Your task to perform on an android device: move a message to another label in the gmail app Image 0: 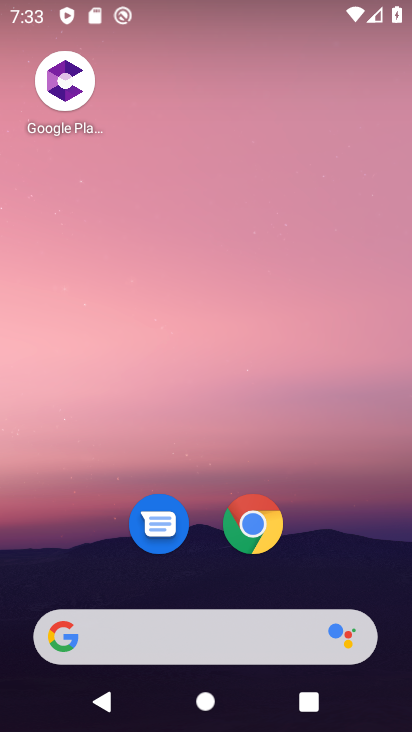
Step 0: drag from (320, 470) to (332, 23)
Your task to perform on an android device: move a message to another label in the gmail app Image 1: 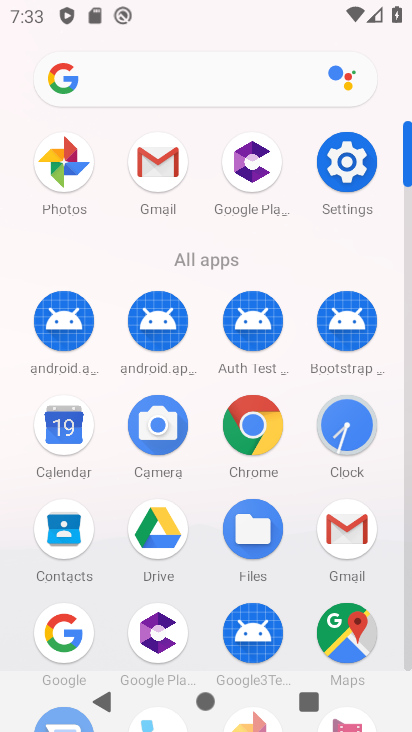
Step 1: click (169, 141)
Your task to perform on an android device: move a message to another label in the gmail app Image 2: 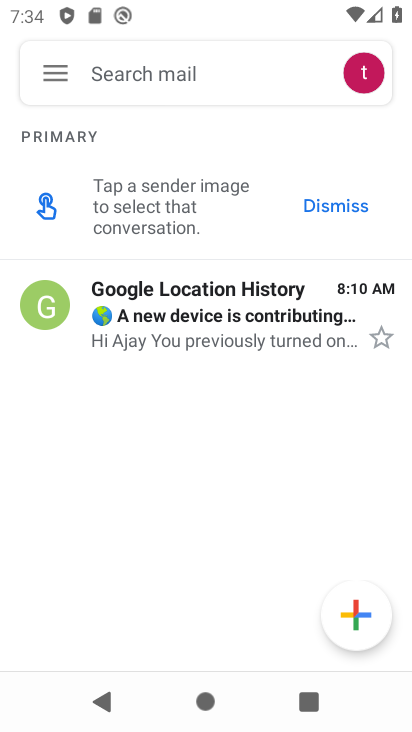
Step 2: click (230, 301)
Your task to perform on an android device: move a message to another label in the gmail app Image 3: 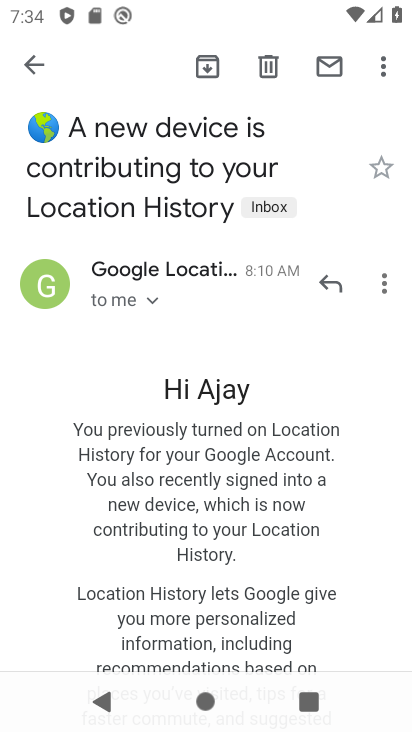
Step 3: click (385, 69)
Your task to perform on an android device: move a message to another label in the gmail app Image 4: 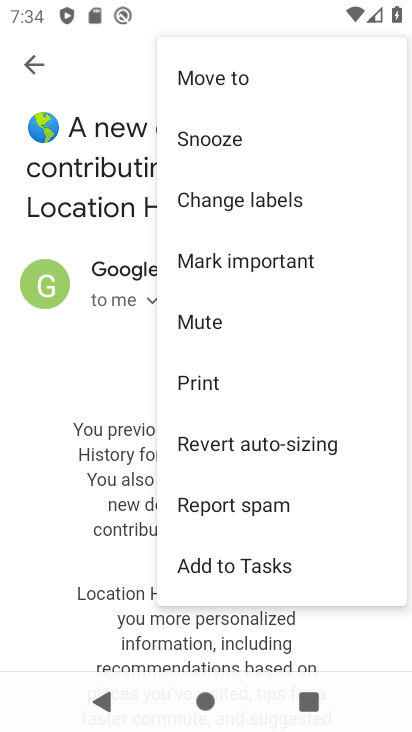
Step 4: click (221, 67)
Your task to perform on an android device: move a message to another label in the gmail app Image 5: 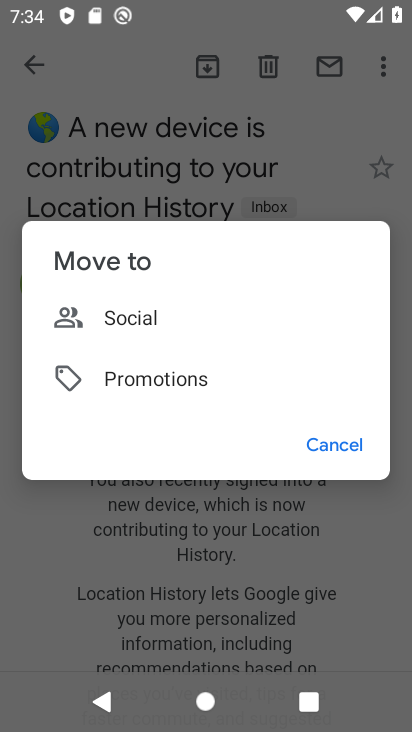
Step 5: click (147, 317)
Your task to perform on an android device: move a message to another label in the gmail app Image 6: 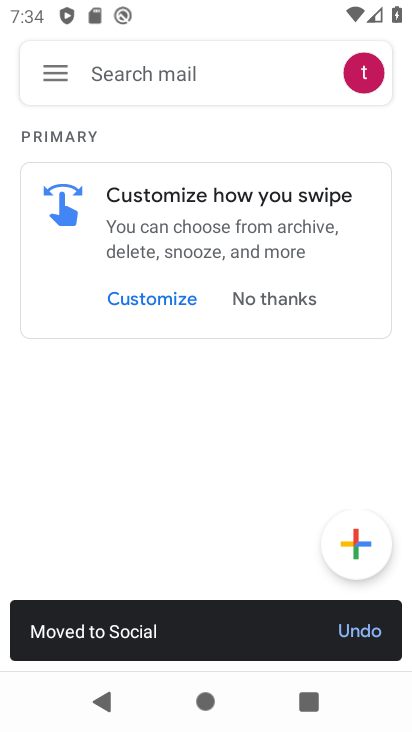
Step 6: click (242, 302)
Your task to perform on an android device: move a message to another label in the gmail app Image 7: 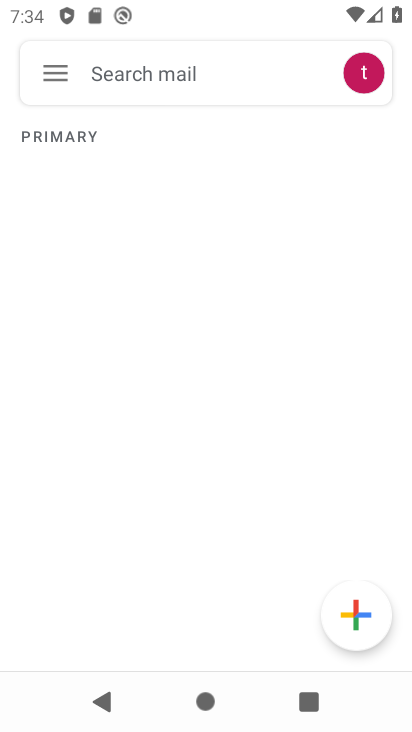
Step 7: task complete